Your task to perform on an android device: Go to Maps Image 0: 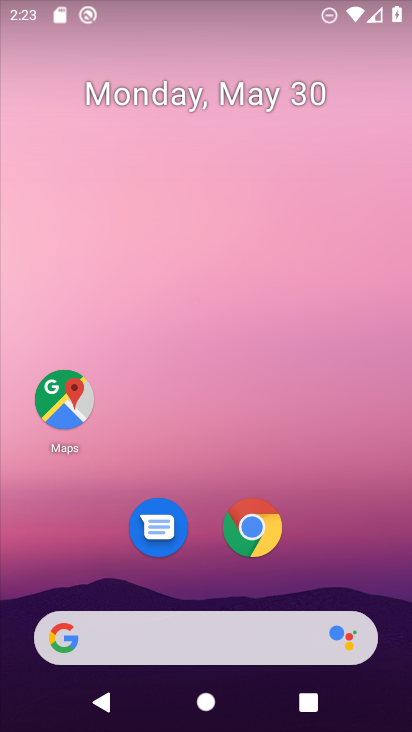
Step 0: drag from (260, 598) to (171, 50)
Your task to perform on an android device: Go to Maps Image 1: 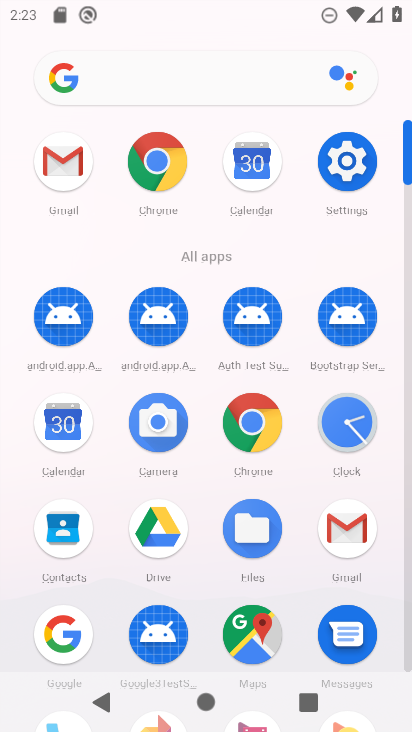
Step 1: click (261, 627)
Your task to perform on an android device: Go to Maps Image 2: 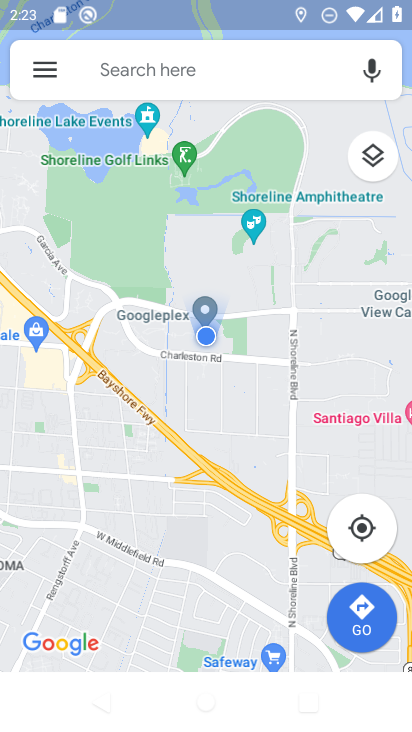
Step 2: task complete